Your task to perform on an android device: turn off sleep mode Image 0: 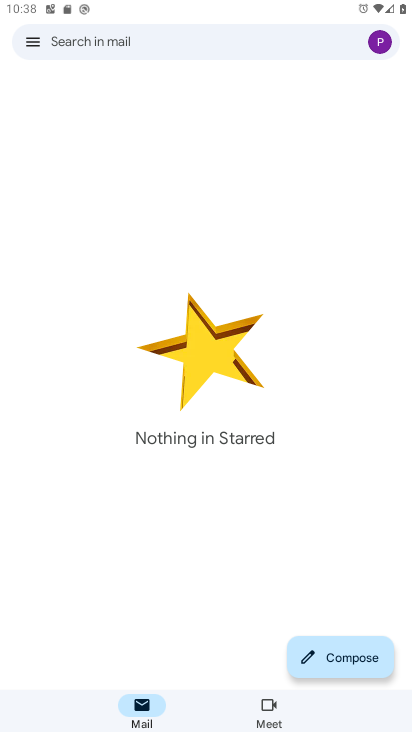
Step 0: task complete